Your task to perform on an android device: set default search engine in the chrome app Image 0: 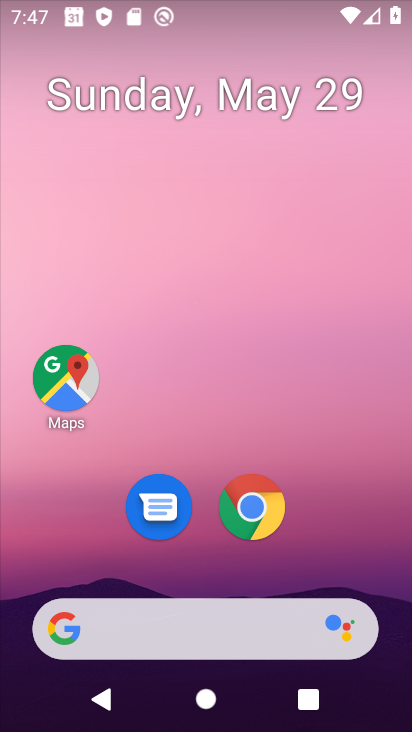
Step 0: click (254, 502)
Your task to perform on an android device: set default search engine in the chrome app Image 1: 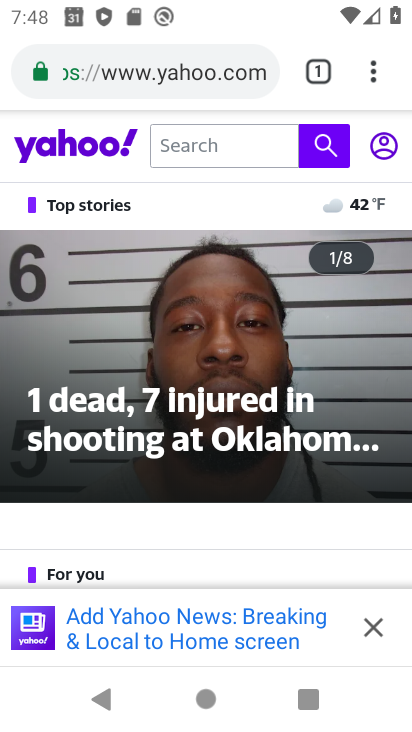
Step 1: drag from (373, 67) to (197, 503)
Your task to perform on an android device: set default search engine in the chrome app Image 2: 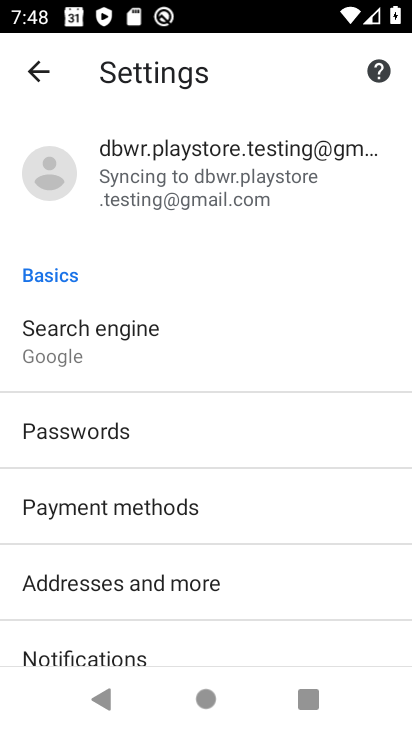
Step 2: click (168, 368)
Your task to perform on an android device: set default search engine in the chrome app Image 3: 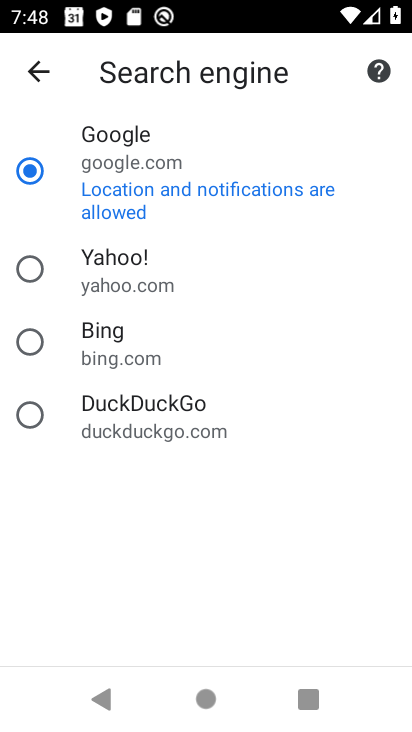
Step 3: task complete